Your task to perform on an android device: Search for bose soundsport free on target, select the first entry, and add it to the cart. Image 0: 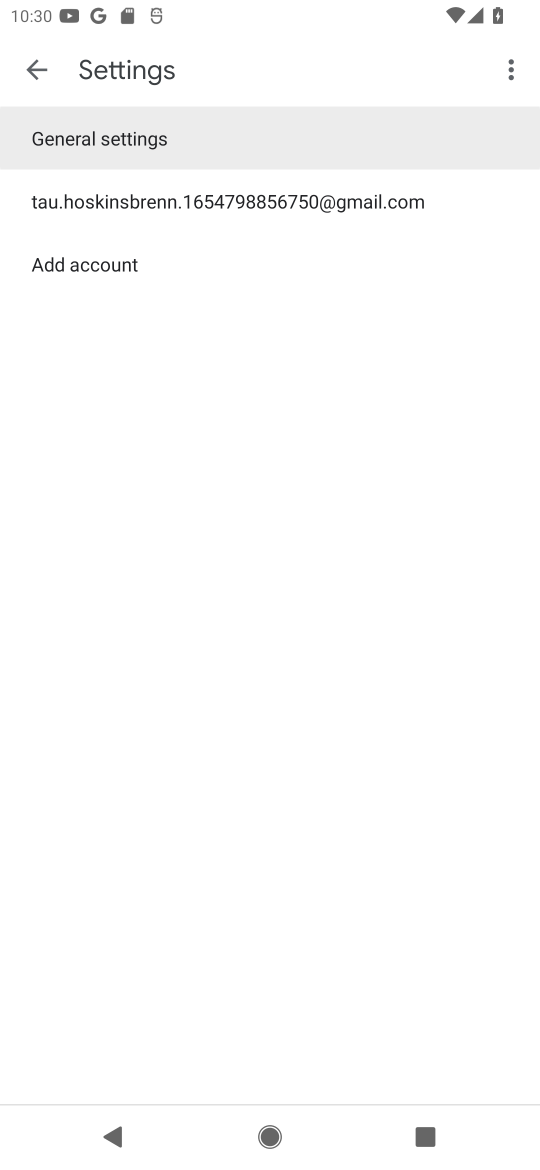
Step 0: press home button
Your task to perform on an android device: Search for bose soundsport free on target, select the first entry, and add it to the cart. Image 1: 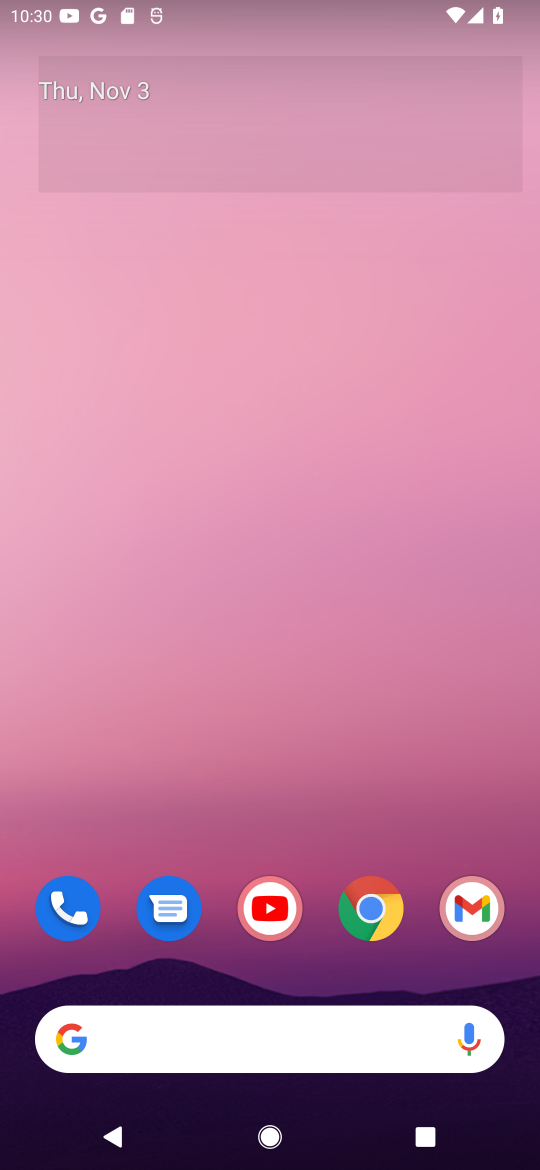
Step 1: click (385, 920)
Your task to perform on an android device: Search for bose soundsport free on target, select the first entry, and add it to the cart. Image 2: 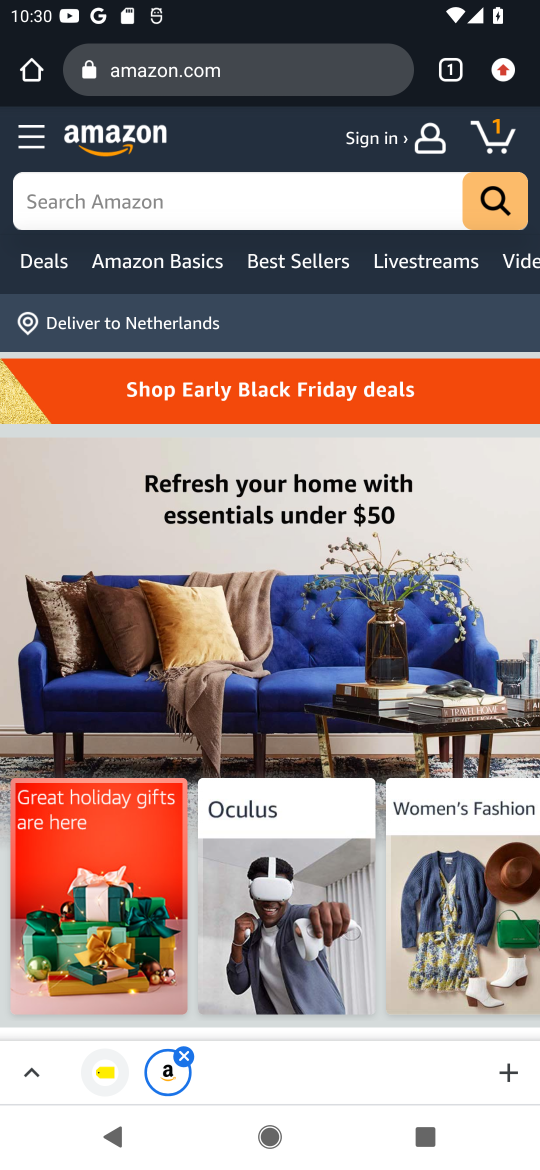
Step 2: click (25, 73)
Your task to perform on an android device: Search for bose soundsport free on target, select the first entry, and add it to the cart. Image 3: 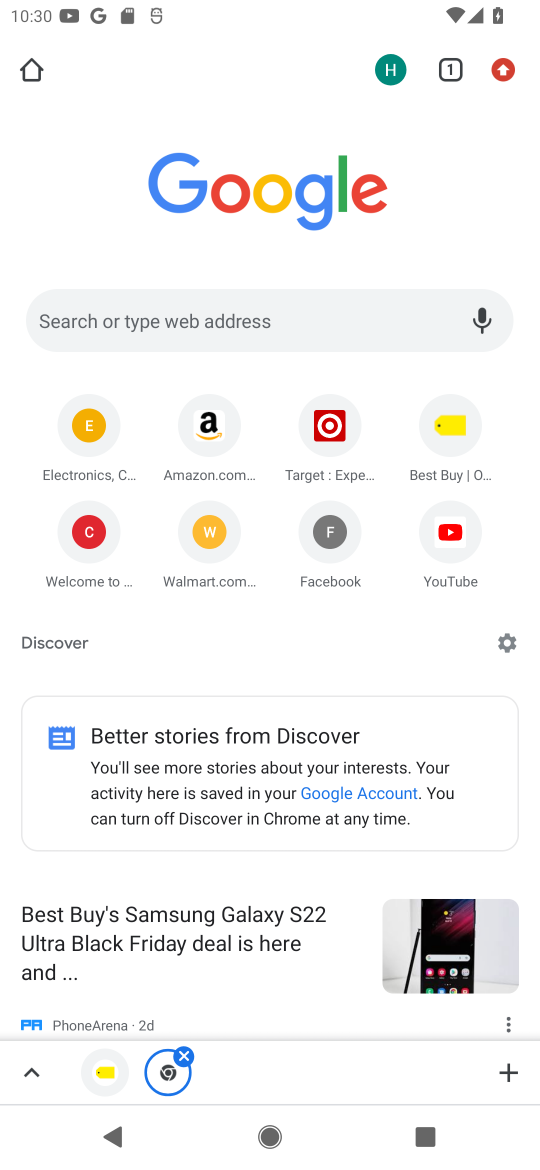
Step 3: click (330, 423)
Your task to perform on an android device: Search for bose soundsport free on target, select the first entry, and add it to the cart. Image 4: 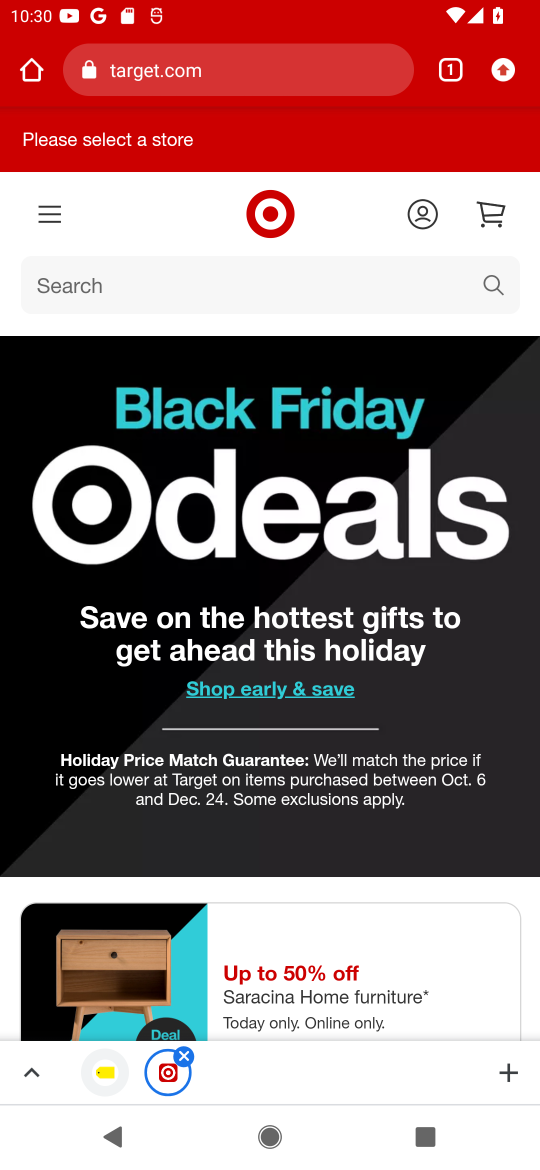
Step 4: click (481, 270)
Your task to perform on an android device: Search for bose soundsport free on target, select the first entry, and add it to the cart. Image 5: 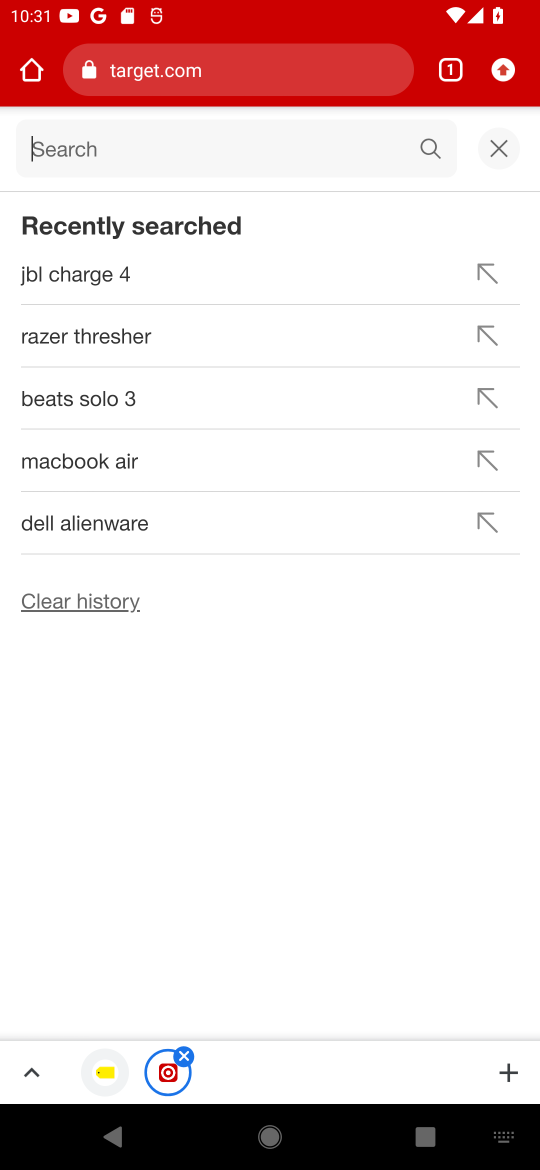
Step 5: type "bose soundsport free"
Your task to perform on an android device: Search for bose soundsport free on target, select the first entry, and add it to the cart. Image 6: 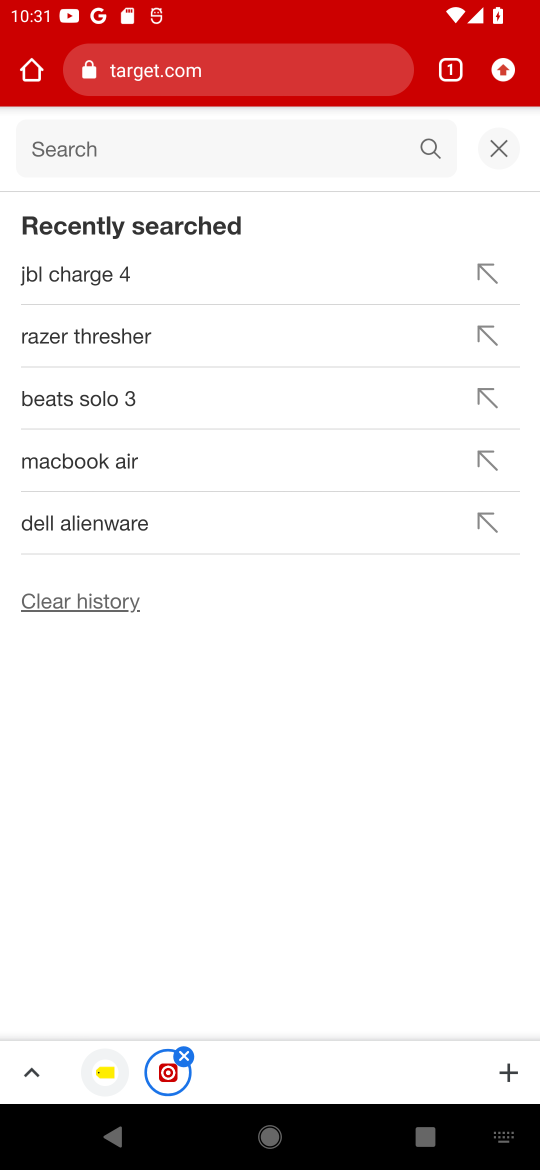
Step 6: press enter
Your task to perform on an android device: Search for bose soundsport free on target, select the first entry, and add it to the cart. Image 7: 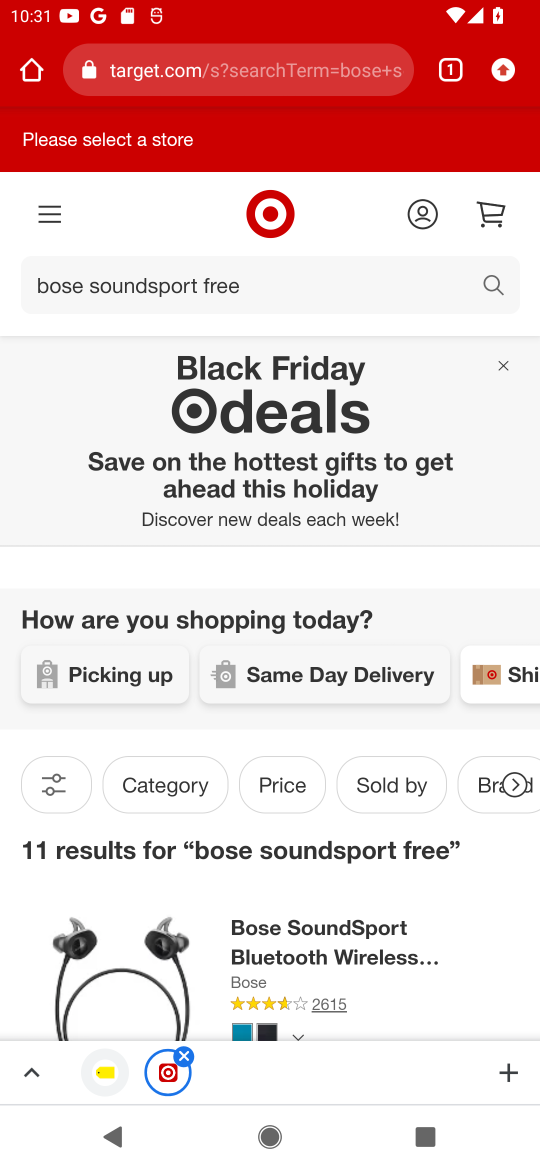
Step 7: drag from (380, 927) to (423, 481)
Your task to perform on an android device: Search for bose soundsport free on target, select the first entry, and add it to the cart. Image 8: 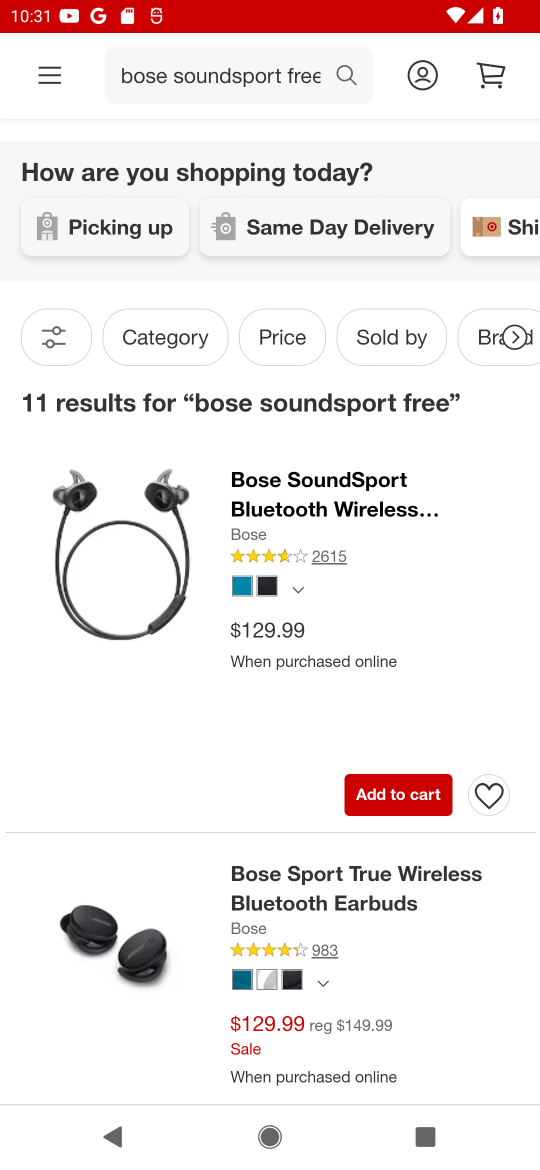
Step 8: click (100, 579)
Your task to perform on an android device: Search for bose soundsport free on target, select the first entry, and add it to the cart. Image 9: 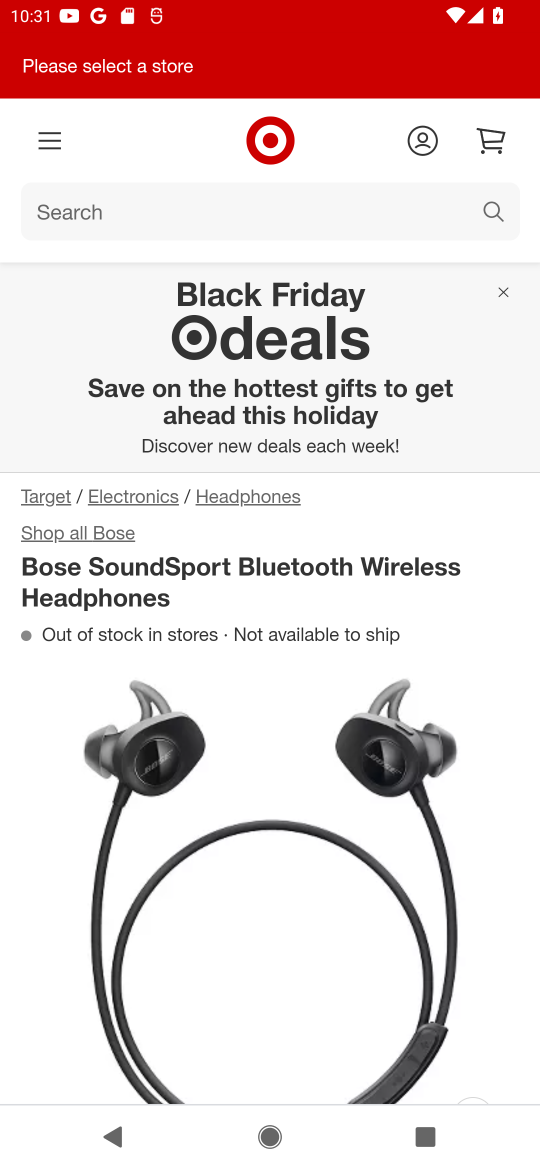
Step 9: drag from (388, 896) to (350, 492)
Your task to perform on an android device: Search for bose soundsport free on target, select the first entry, and add it to the cart. Image 10: 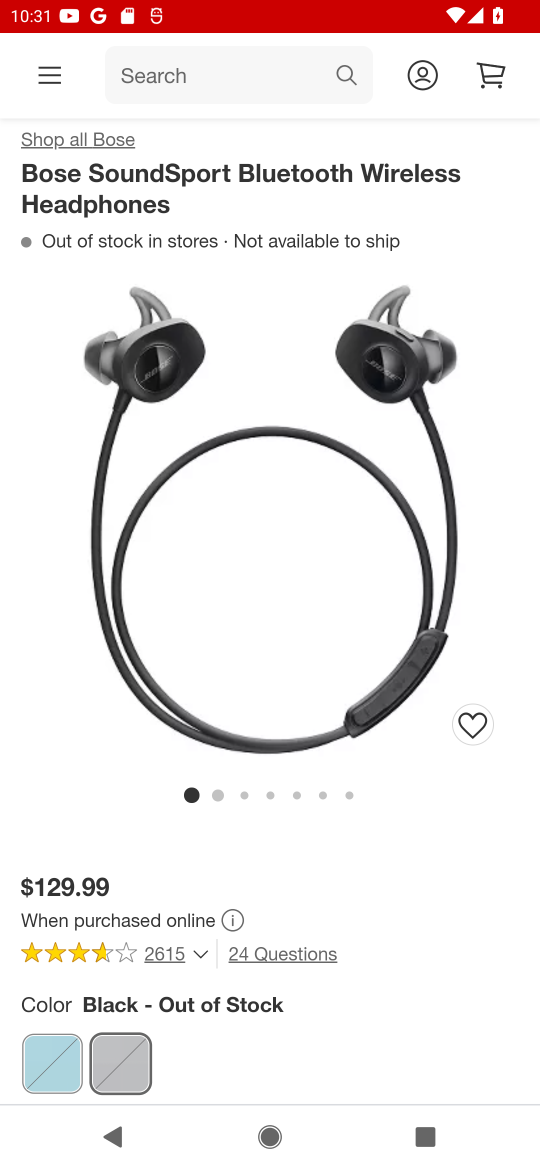
Step 10: drag from (265, 760) to (273, 500)
Your task to perform on an android device: Search for bose soundsport free on target, select the first entry, and add it to the cart. Image 11: 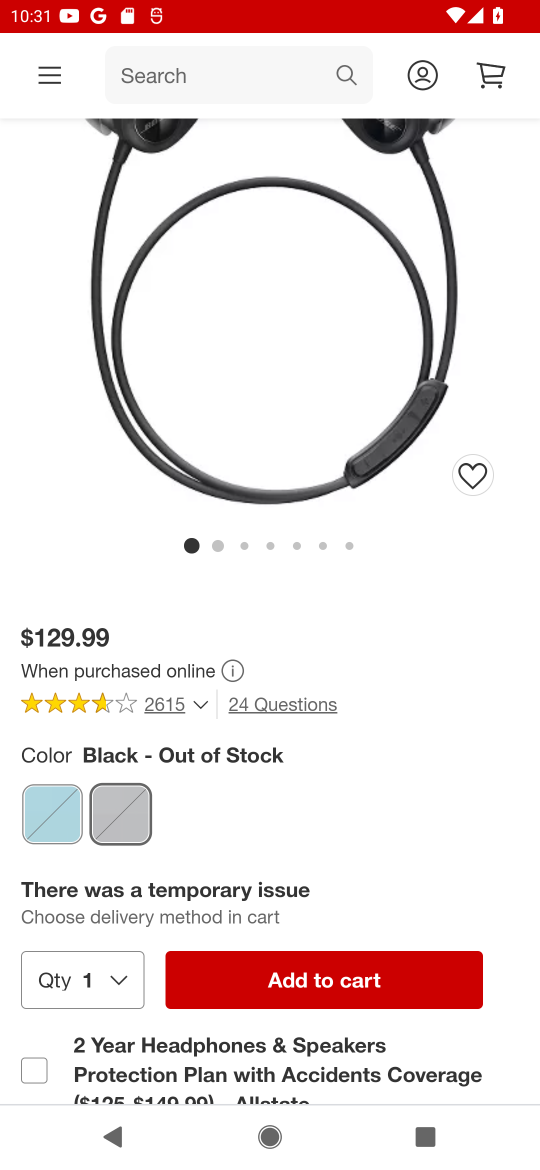
Step 11: click (337, 979)
Your task to perform on an android device: Search for bose soundsport free on target, select the first entry, and add it to the cart. Image 12: 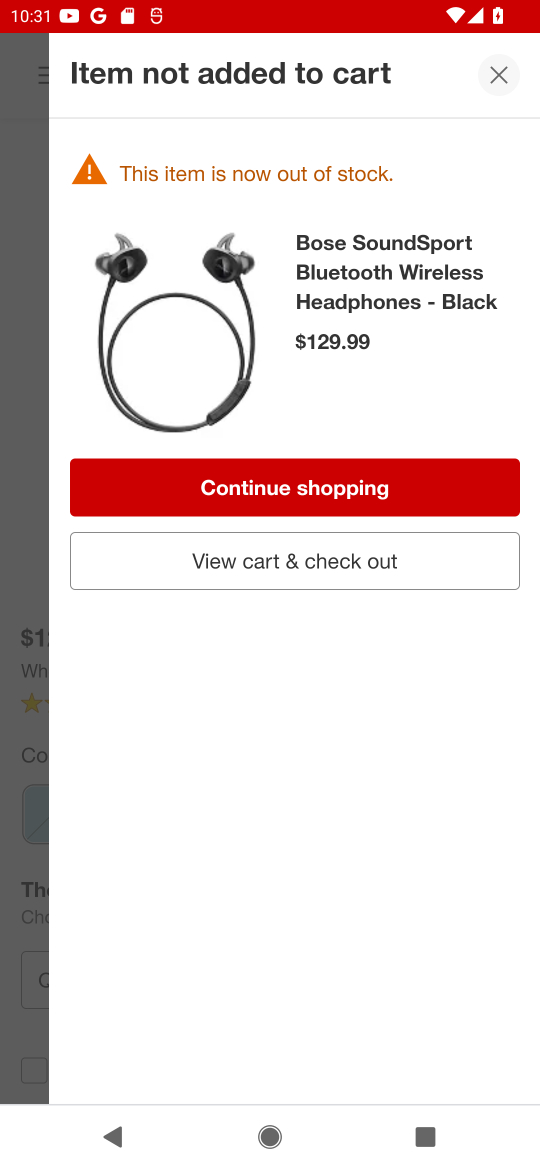
Step 12: task complete